Your task to perform on an android device: Show me popular videos on Youtube Image 0: 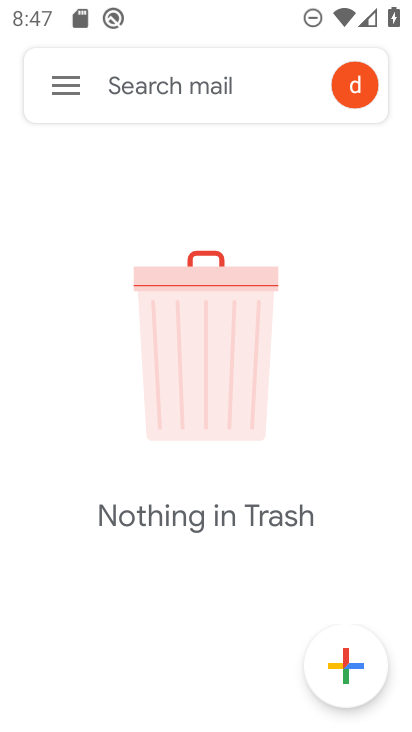
Step 0: press back button
Your task to perform on an android device: Show me popular videos on Youtube Image 1: 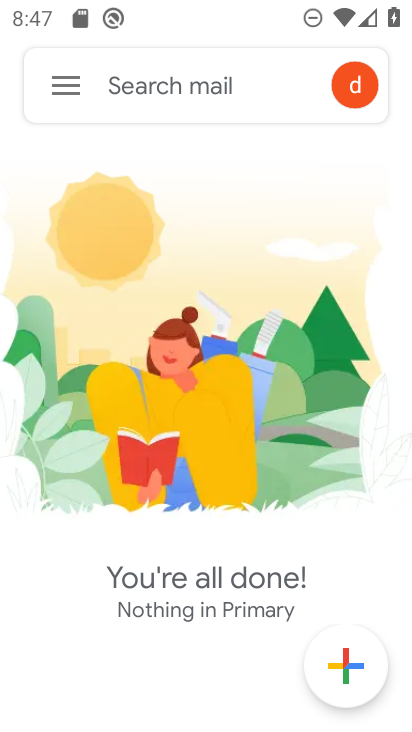
Step 1: press home button
Your task to perform on an android device: Show me popular videos on Youtube Image 2: 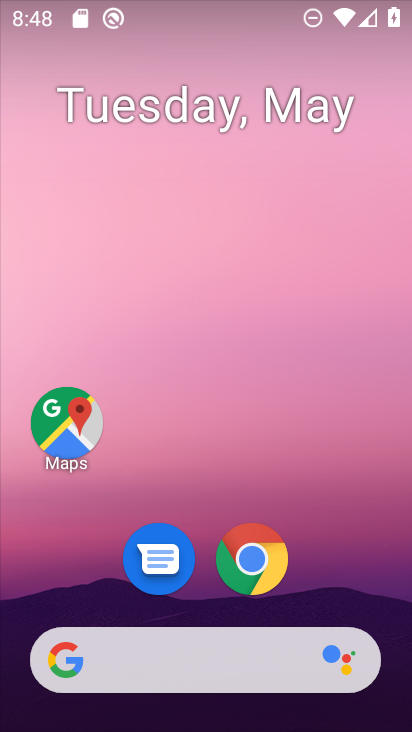
Step 2: drag from (238, 587) to (267, 92)
Your task to perform on an android device: Show me popular videos on Youtube Image 3: 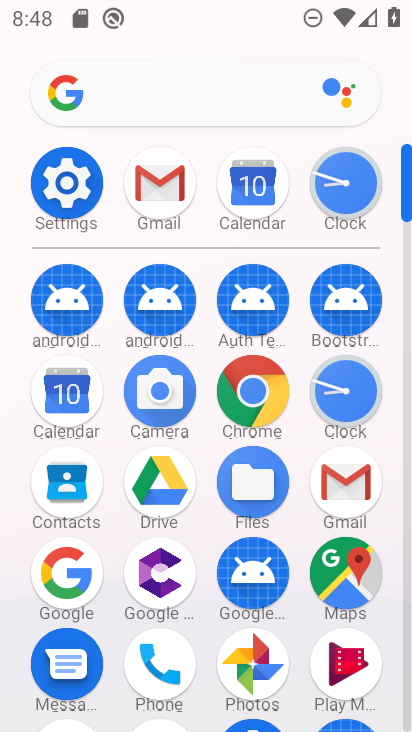
Step 3: drag from (216, 638) to (352, 4)
Your task to perform on an android device: Show me popular videos on Youtube Image 4: 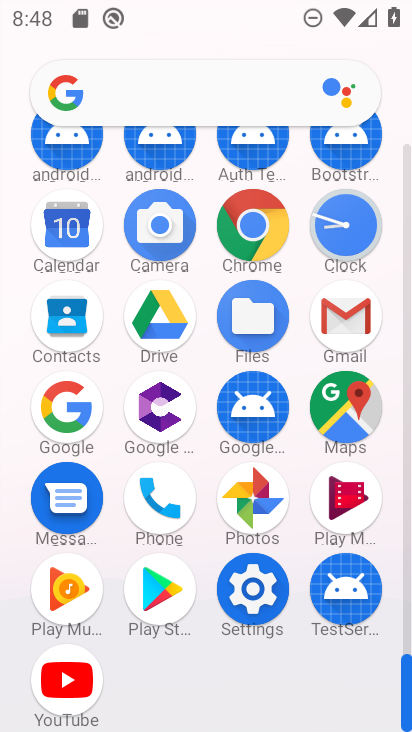
Step 4: click (60, 675)
Your task to perform on an android device: Show me popular videos on Youtube Image 5: 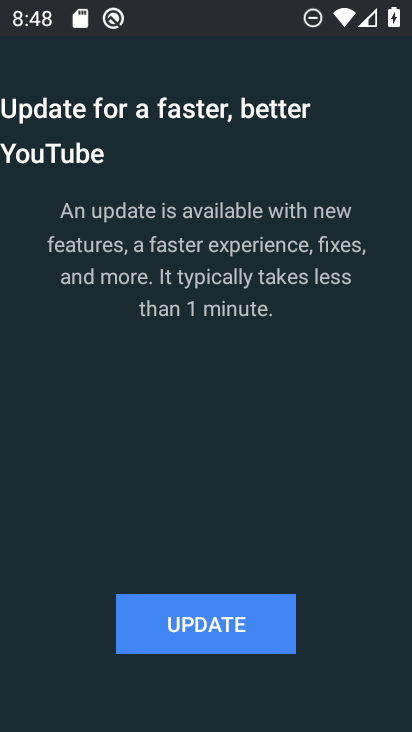
Step 5: click (195, 634)
Your task to perform on an android device: Show me popular videos on Youtube Image 6: 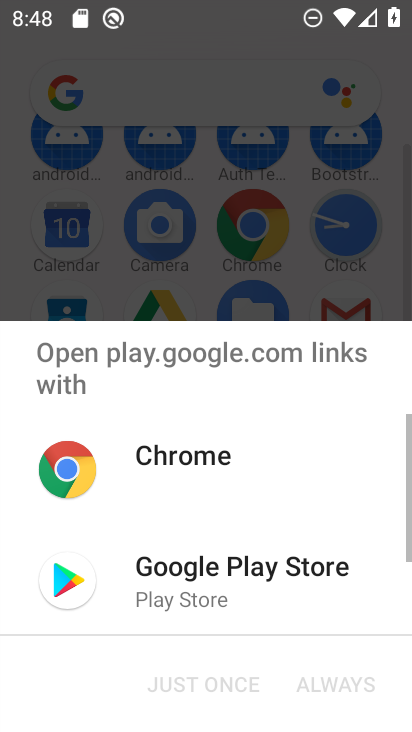
Step 6: click (210, 601)
Your task to perform on an android device: Show me popular videos on Youtube Image 7: 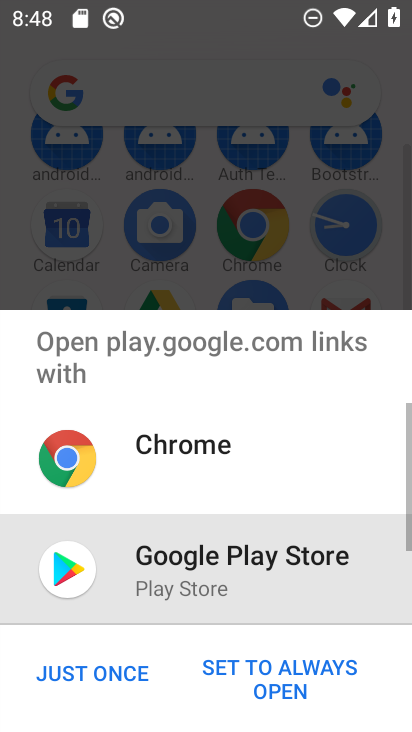
Step 7: click (112, 679)
Your task to perform on an android device: Show me popular videos on Youtube Image 8: 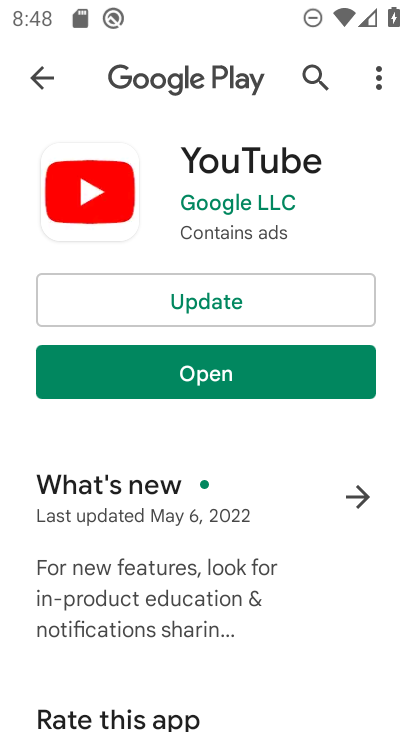
Step 8: click (226, 295)
Your task to perform on an android device: Show me popular videos on Youtube Image 9: 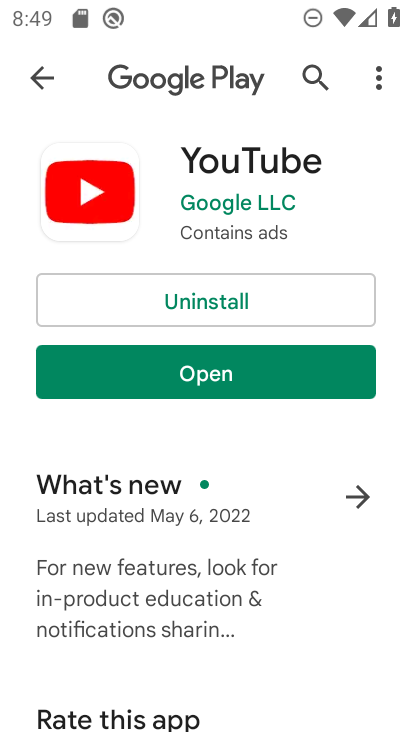
Step 9: click (231, 379)
Your task to perform on an android device: Show me popular videos on Youtube Image 10: 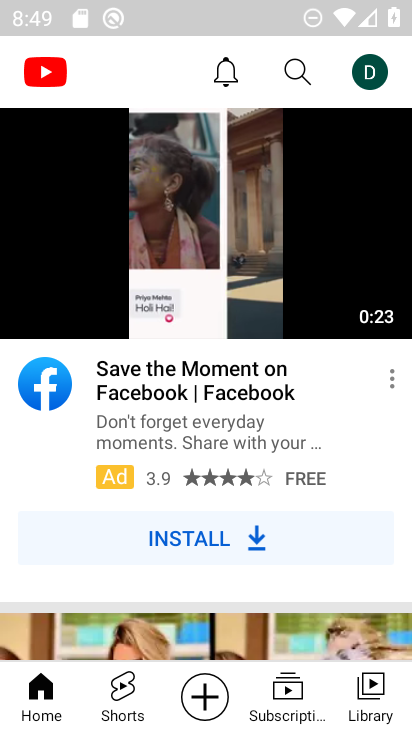
Step 10: click (56, 702)
Your task to perform on an android device: Show me popular videos on Youtube Image 11: 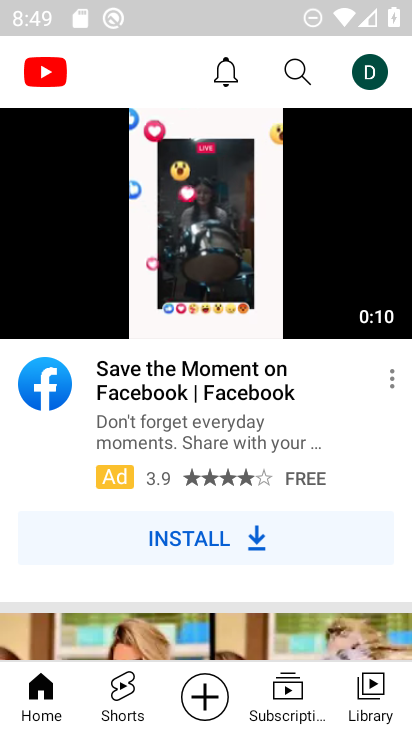
Step 11: click (32, 693)
Your task to perform on an android device: Show me popular videos on Youtube Image 12: 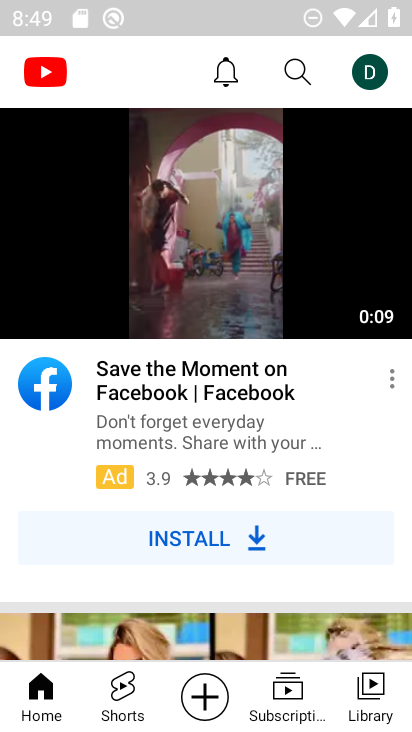
Step 12: click (198, 699)
Your task to perform on an android device: Show me popular videos on Youtube Image 13: 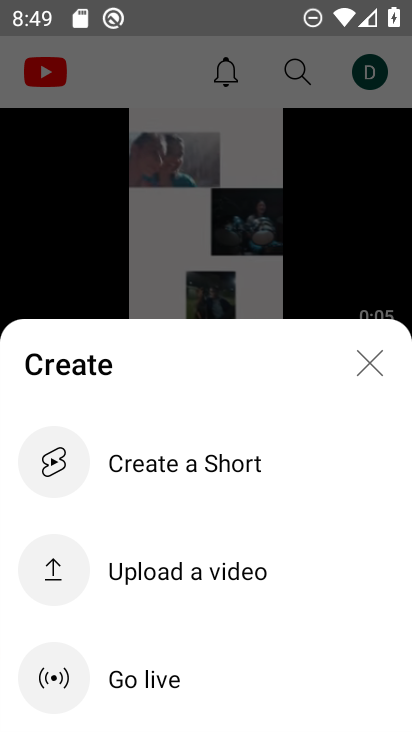
Step 13: click (376, 360)
Your task to perform on an android device: Show me popular videos on Youtube Image 14: 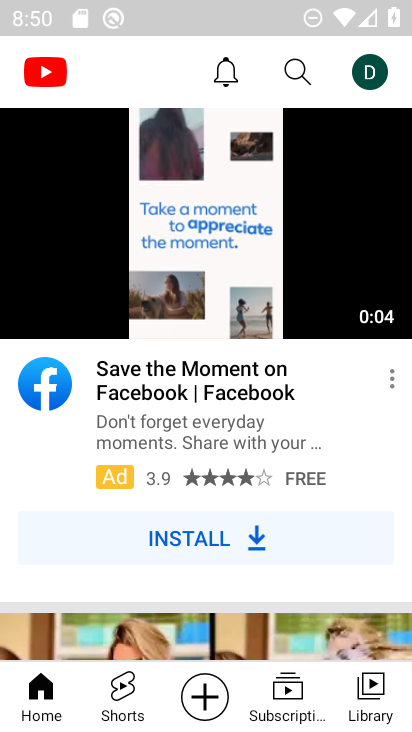
Step 14: click (127, 681)
Your task to perform on an android device: Show me popular videos on Youtube Image 15: 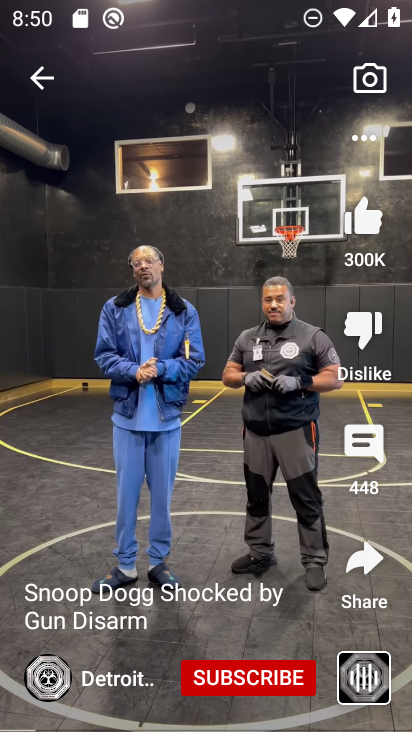
Step 15: click (67, 69)
Your task to perform on an android device: Show me popular videos on Youtube Image 16: 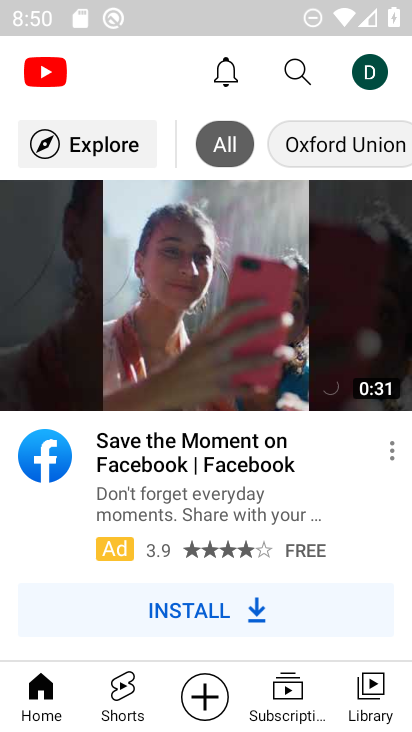
Step 16: click (91, 152)
Your task to perform on an android device: Show me popular videos on Youtube Image 17: 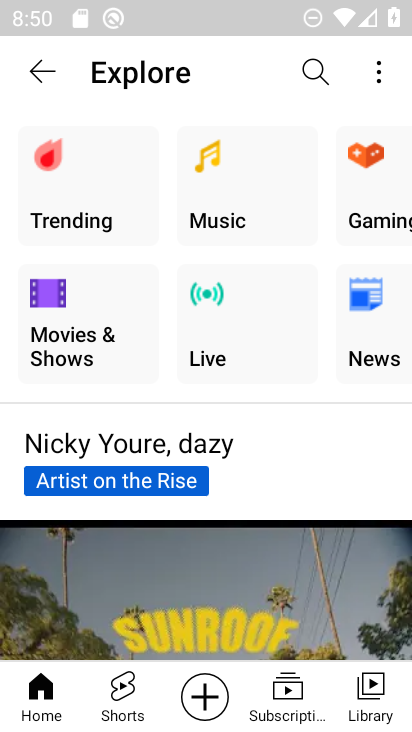
Step 17: click (60, 165)
Your task to perform on an android device: Show me popular videos on Youtube Image 18: 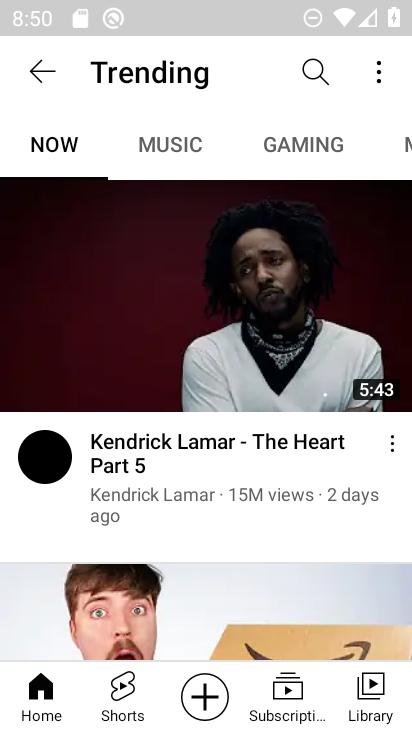
Step 18: task complete